Your task to perform on an android device: Open sound settings Image 0: 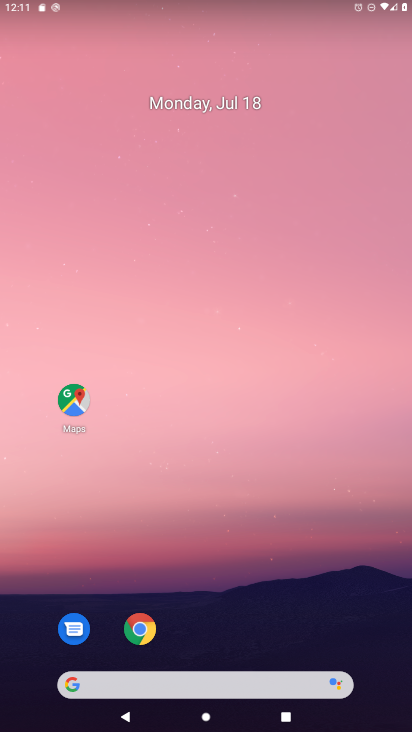
Step 0: drag from (203, 685) to (255, 161)
Your task to perform on an android device: Open sound settings Image 1: 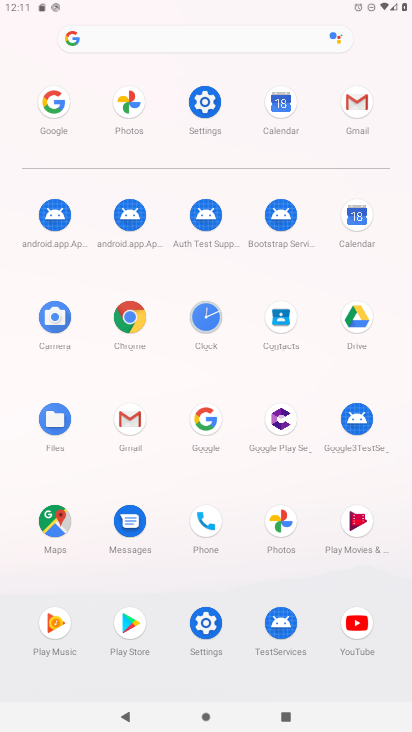
Step 1: click (207, 101)
Your task to perform on an android device: Open sound settings Image 2: 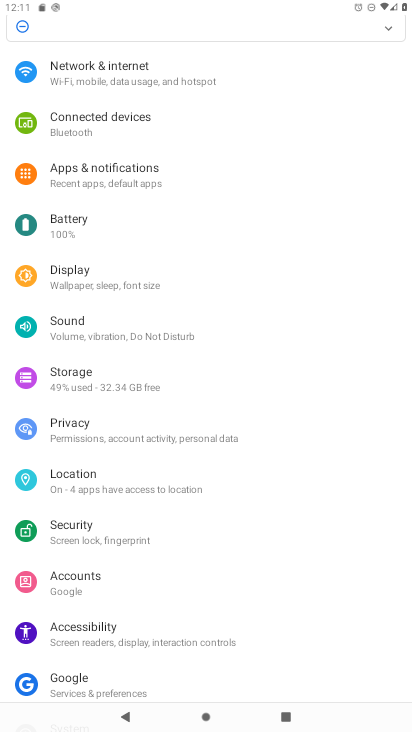
Step 2: click (108, 335)
Your task to perform on an android device: Open sound settings Image 3: 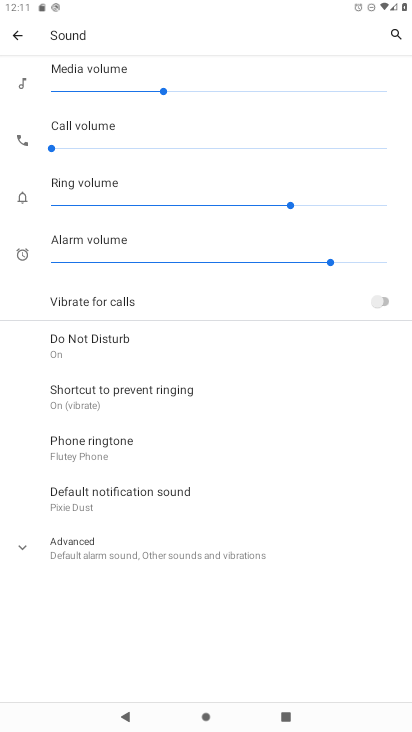
Step 3: task complete